Your task to perform on an android device: turn pop-ups off in chrome Image 0: 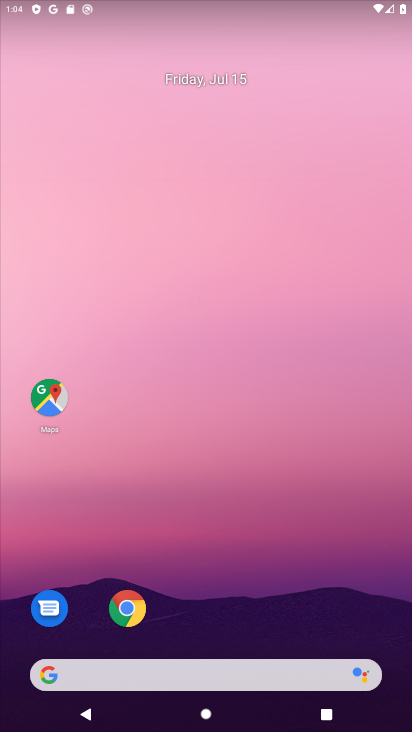
Step 0: click (125, 606)
Your task to perform on an android device: turn pop-ups off in chrome Image 1: 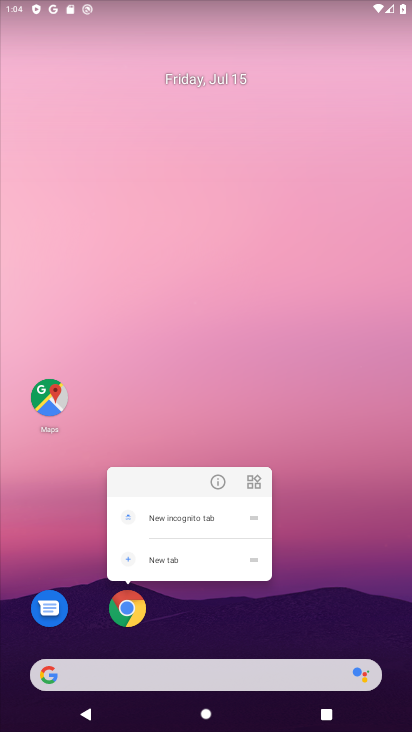
Step 1: click (125, 606)
Your task to perform on an android device: turn pop-ups off in chrome Image 2: 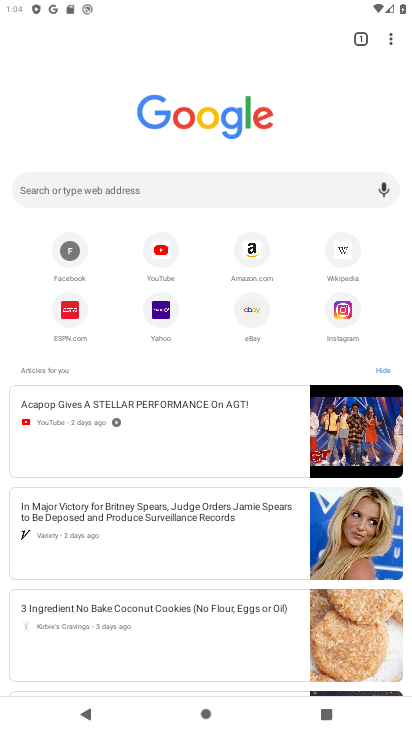
Step 2: click (391, 30)
Your task to perform on an android device: turn pop-ups off in chrome Image 3: 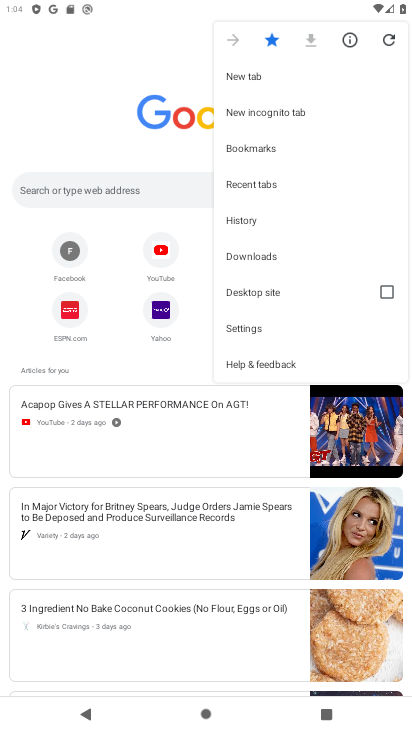
Step 3: click (241, 326)
Your task to perform on an android device: turn pop-ups off in chrome Image 4: 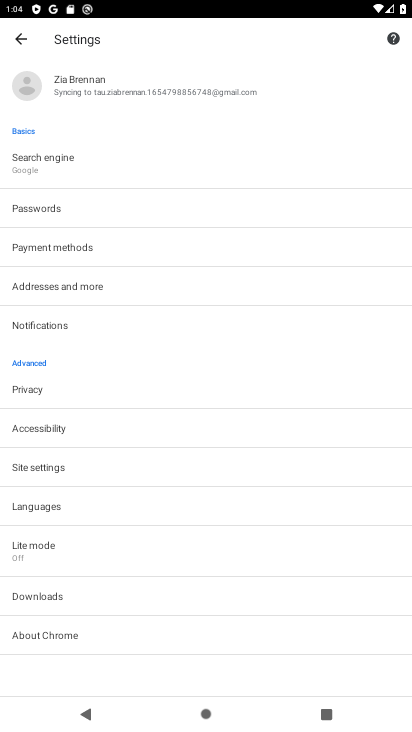
Step 4: click (56, 476)
Your task to perform on an android device: turn pop-ups off in chrome Image 5: 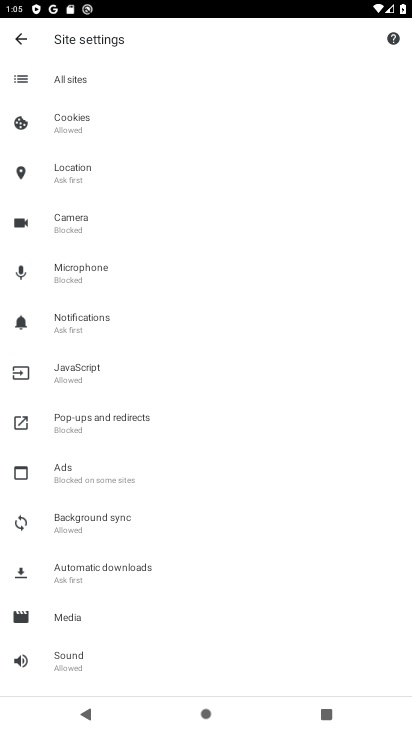
Step 5: click (123, 418)
Your task to perform on an android device: turn pop-ups off in chrome Image 6: 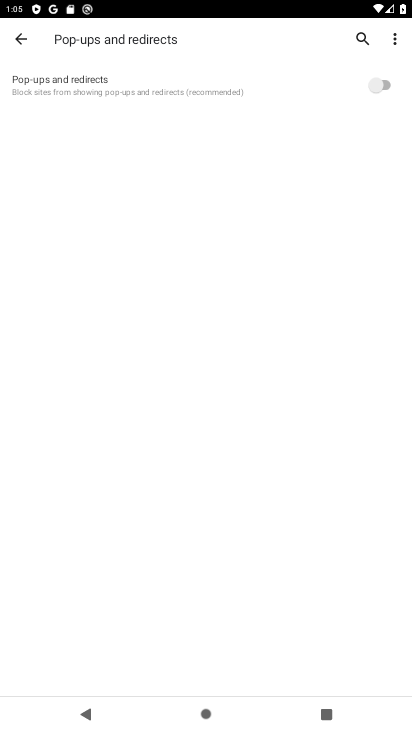
Step 6: task complete